Your task to perform on an android device: Open privacy settings Image 0: 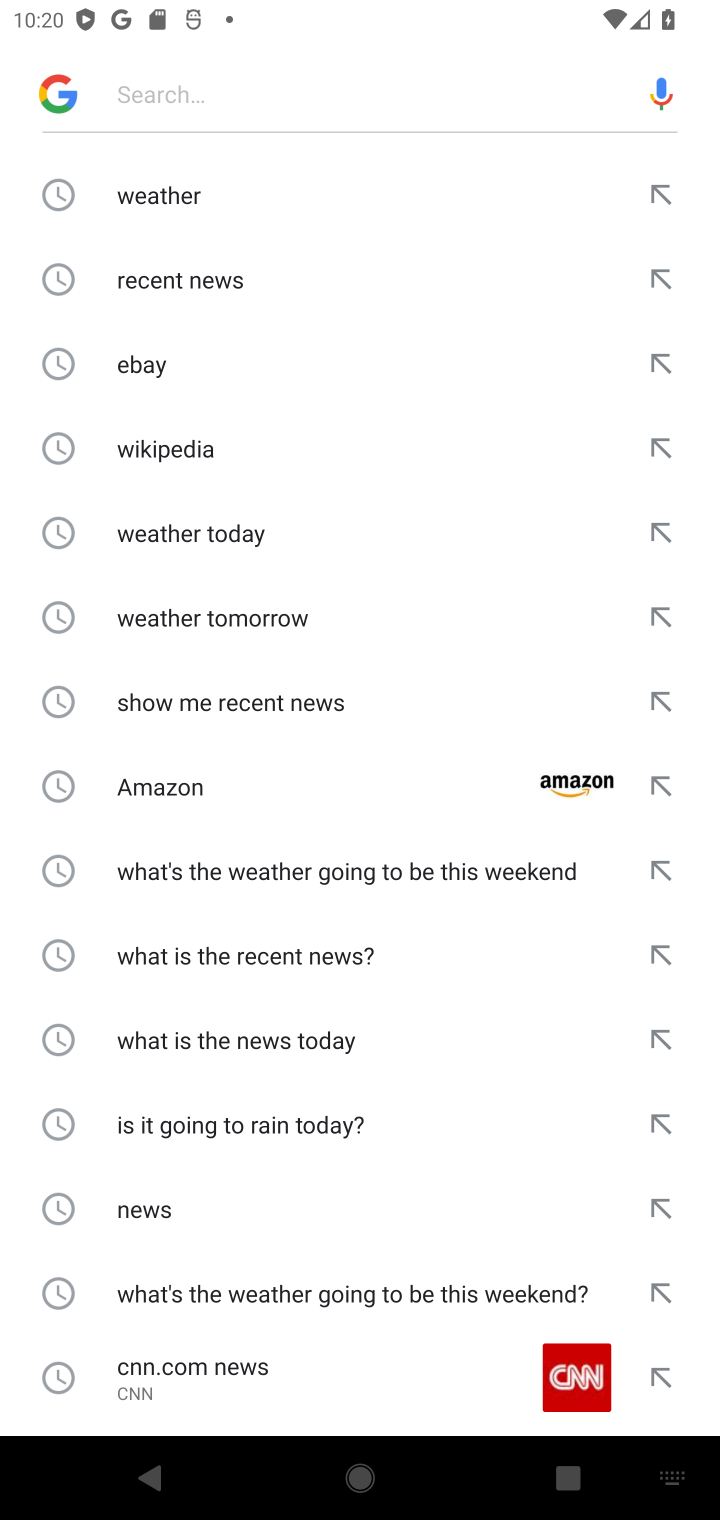
Step 0: press home button
Your task to perform on an android device: Open privacy settings Image 1: 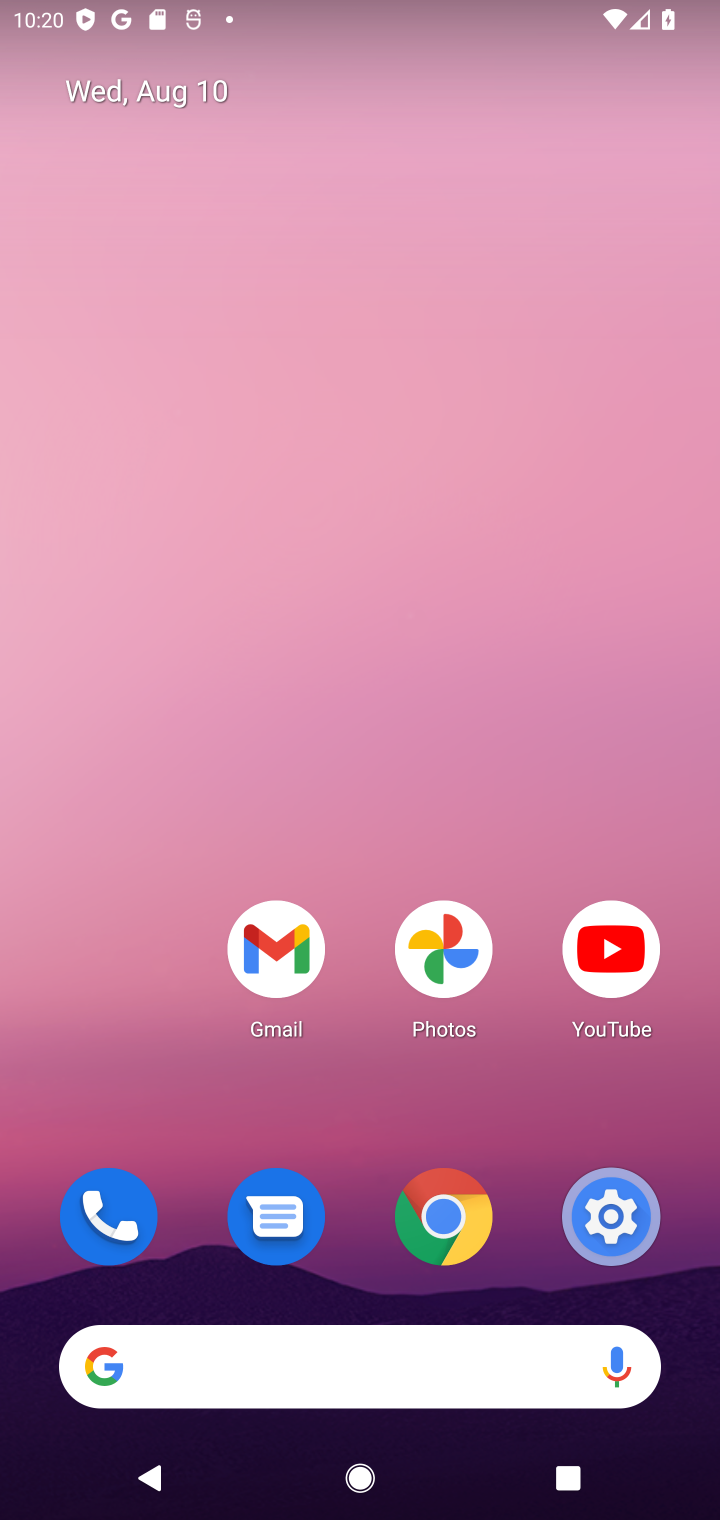
Step 1: drag from (87, 1197) to (571, 241)
Your task to perform on an android device: Open privacy settings Image 2: 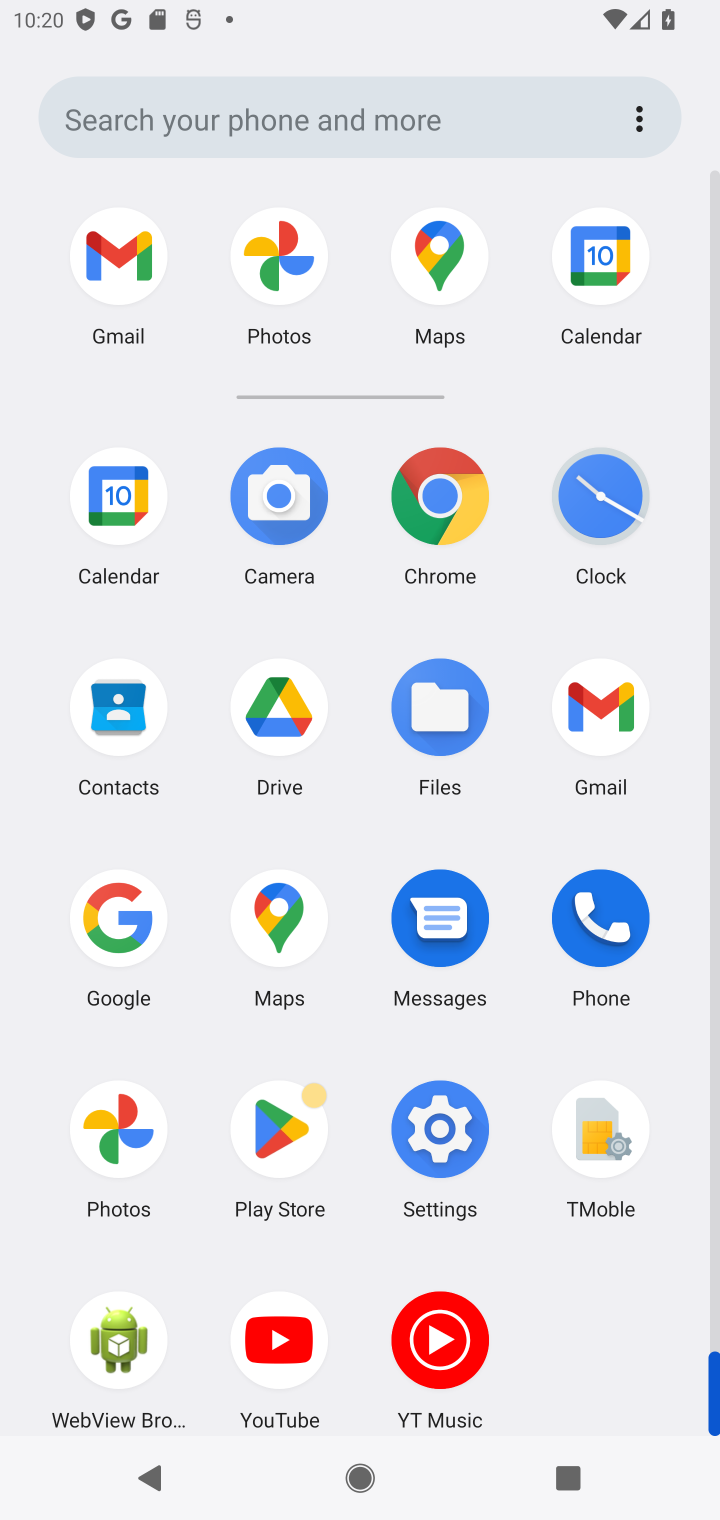
Step 2: click (438, 1110)
Your task to perform on an android device: Open privacy settings Image 3: 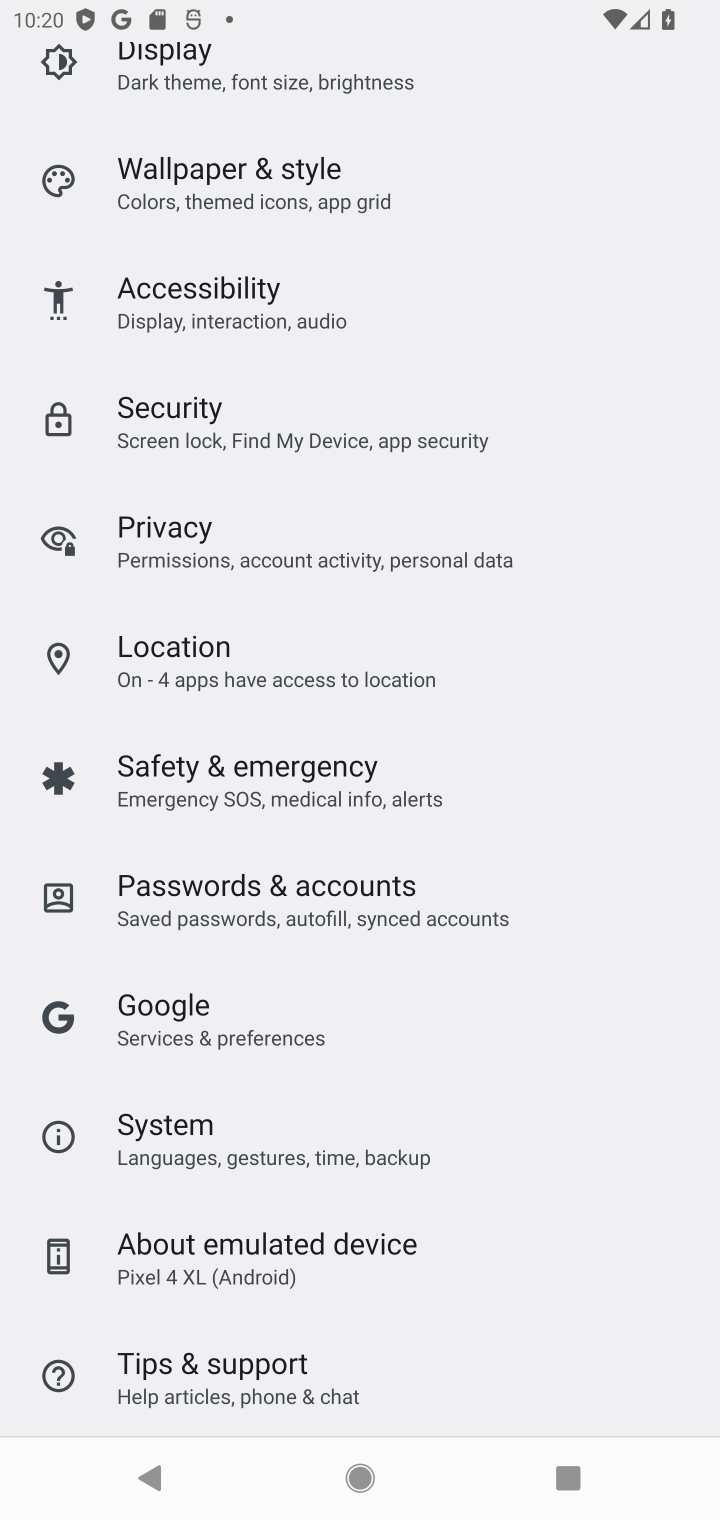
Step 3: click (198, 60)
Your task to perform on an android device: Open privacy settings Image 4: 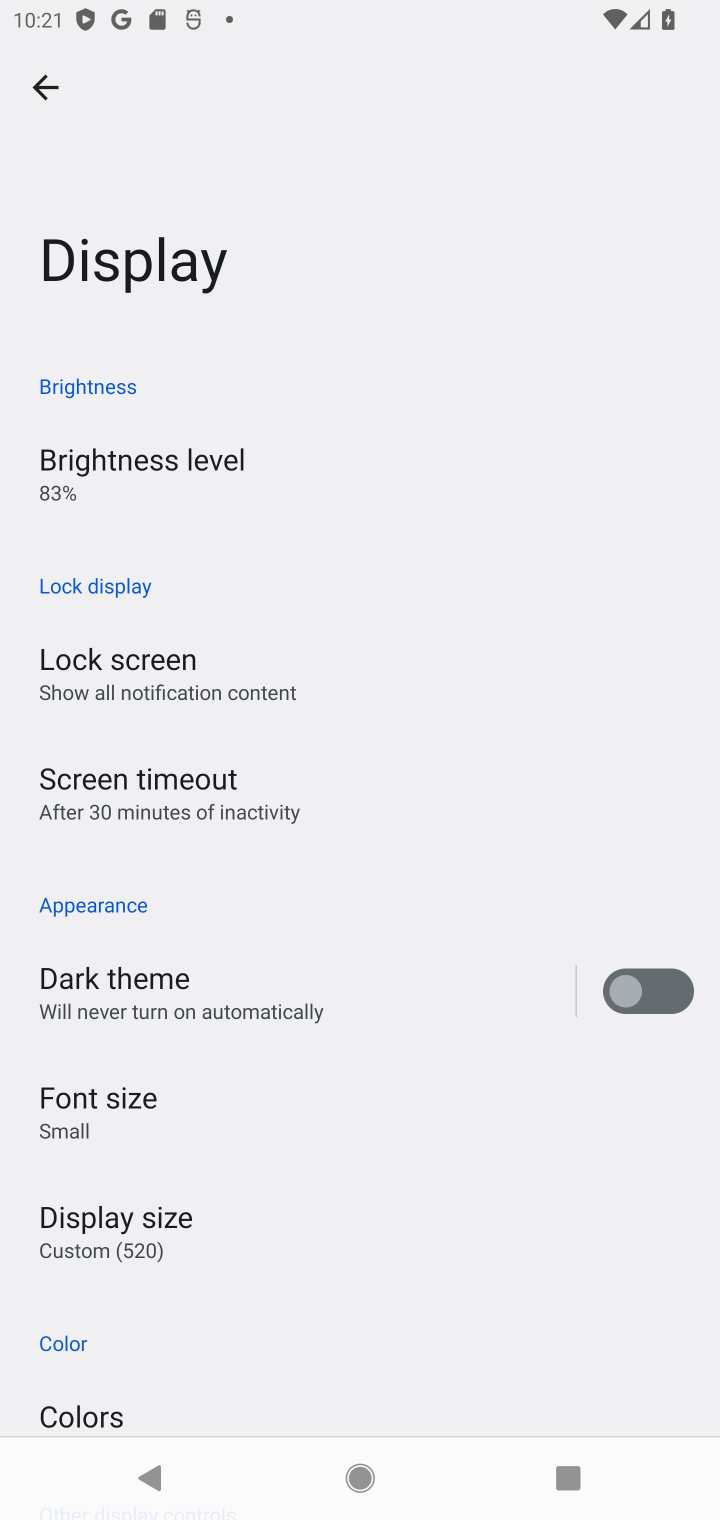
Step 4: press back button
Your task to perform on an android device: Open privacy settings Image 5: 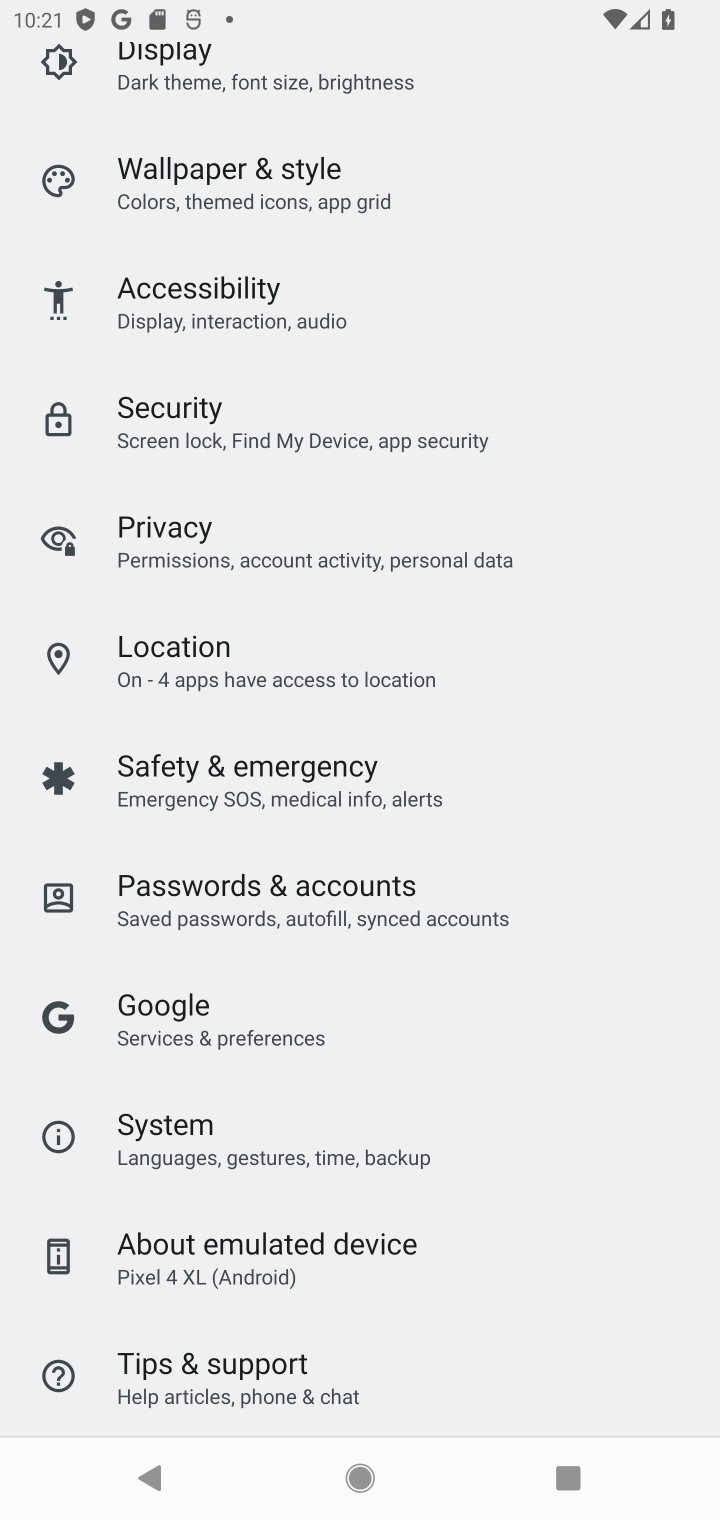
Step 5: drag from (403, 395) to (375, 1442)
Your task to perform on an android device: Open privacy settings Image 6: 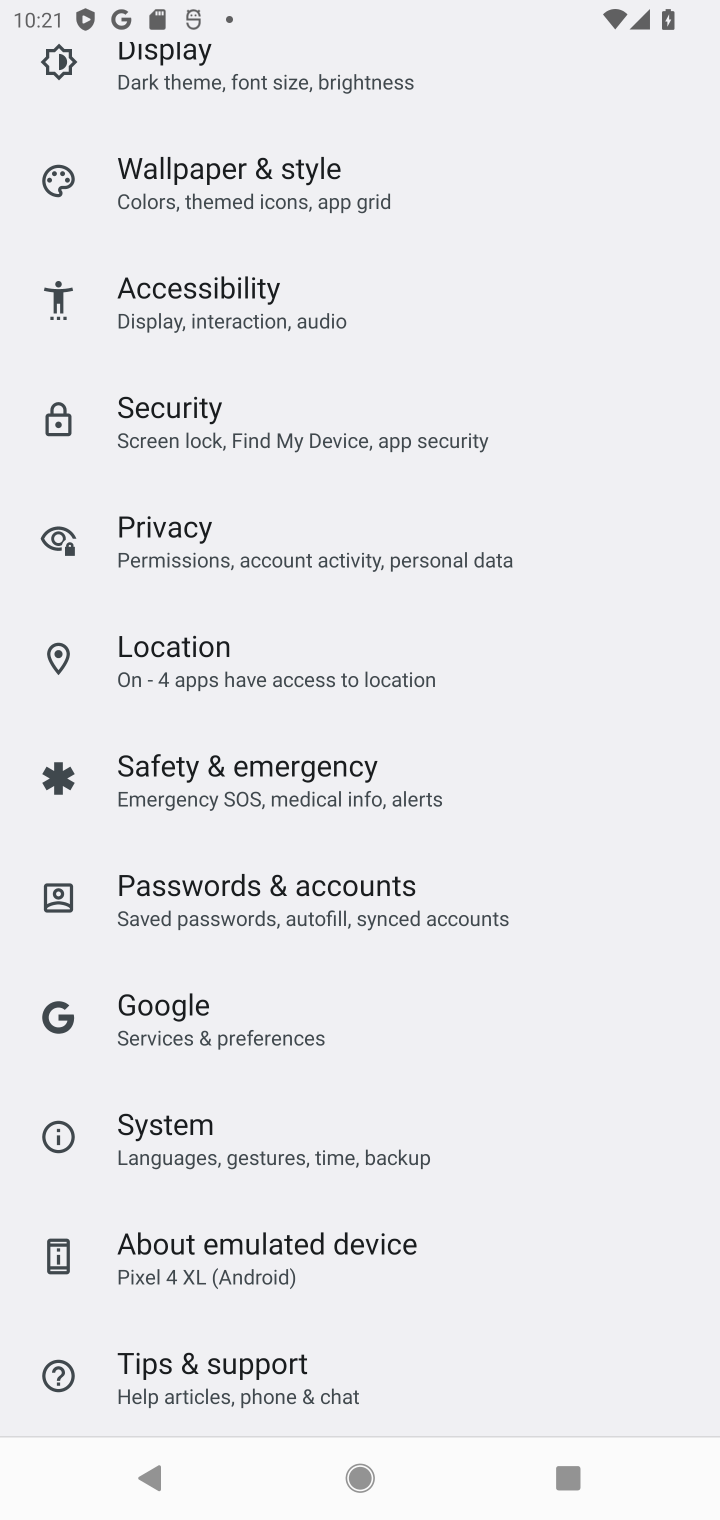
Step 6: click (242, 559)
Your task to perform on an android device: Open privacy settings Image 7: 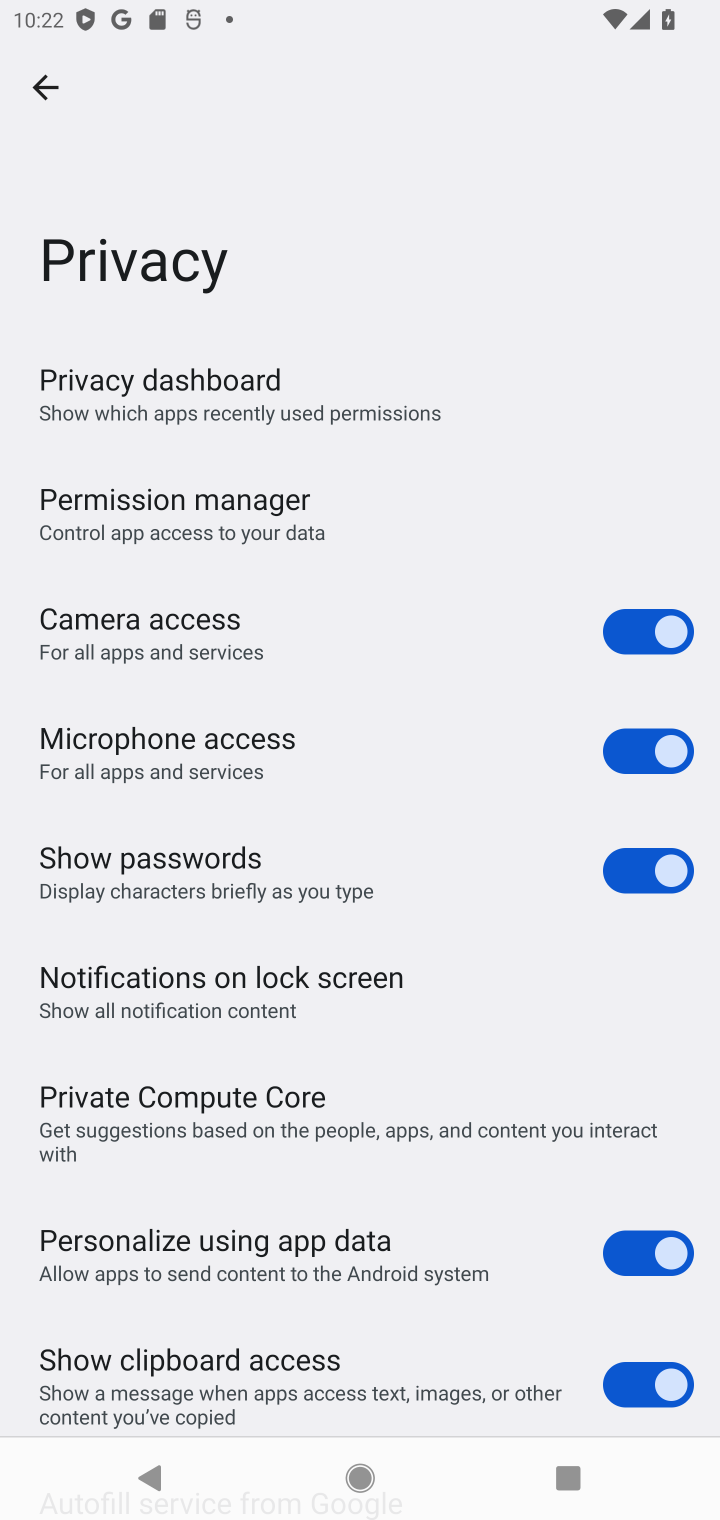
Step 7: task complete